Your task to perform on an android device: open a bookmark in the chrome app Image 0: 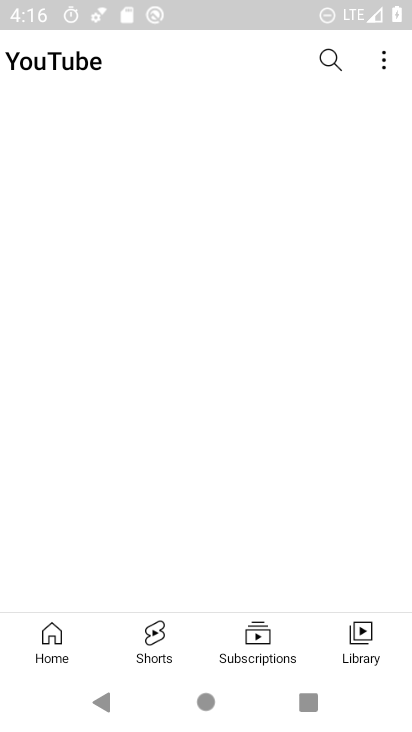
Step 0: press home button
Your task to perform on an android device: open a bookmark in the chrome app Image 1: 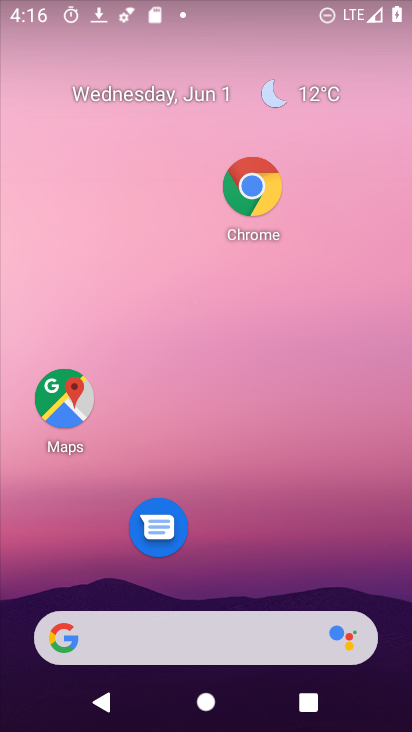
Step 1: drag from (248, 654) to (376, 72)
Your task to perform on an android device: open a bookmark in the chrome app Image 2: 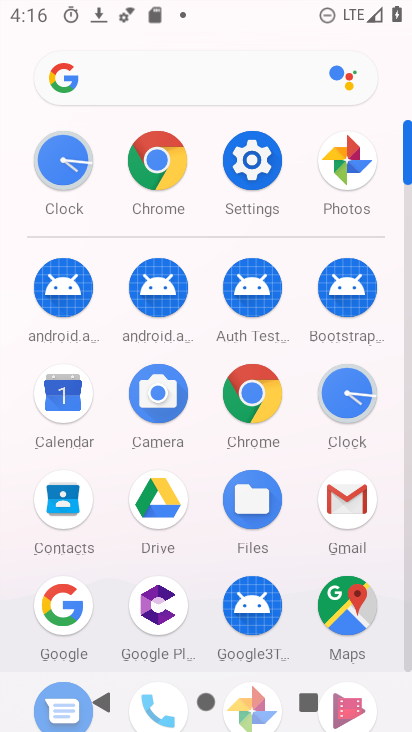
Step 2: click (267, 402)
Your task to perform on an android device: open a bookmark in the chrome app Image 3: 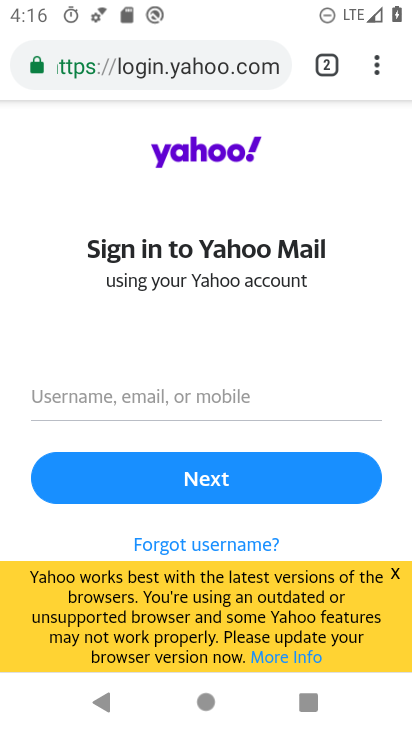
Step 3: click (389, 71)
Your task to perform on an android device: open a bookmark in the chrome app Image 4: 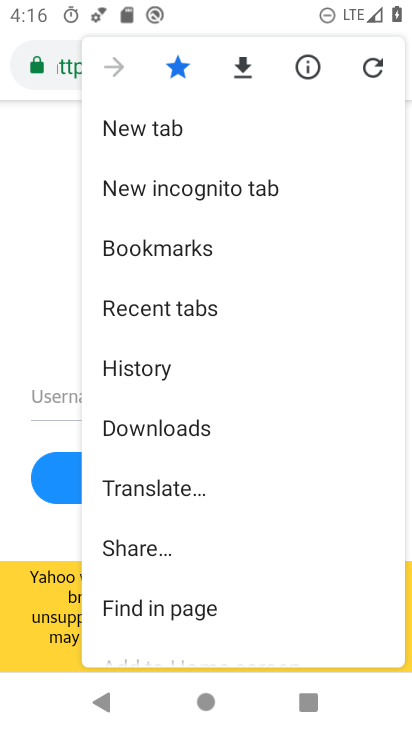
Step 4: click (220, 250)
Your task to perform on an android device: open a bookmark in the chrome app Image 5: 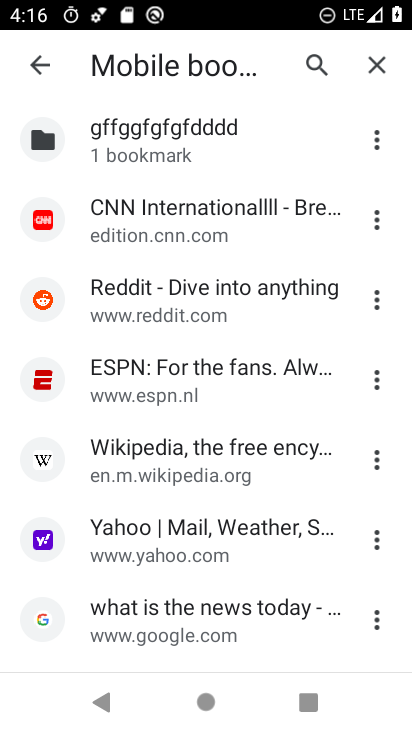
Step 5: click (150, 603)
Your task to perform on an android device: open a bookmark in the chrome app Image 6: 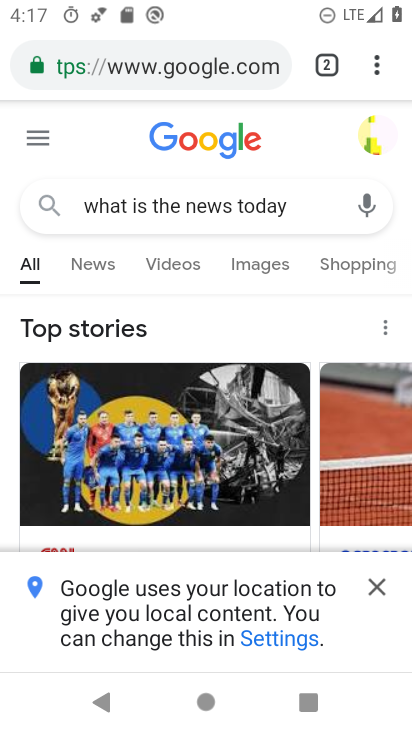
Step 6: click (376, 65)
Your task to perform on an android device: open a bookmark in the chrome app Image 7: 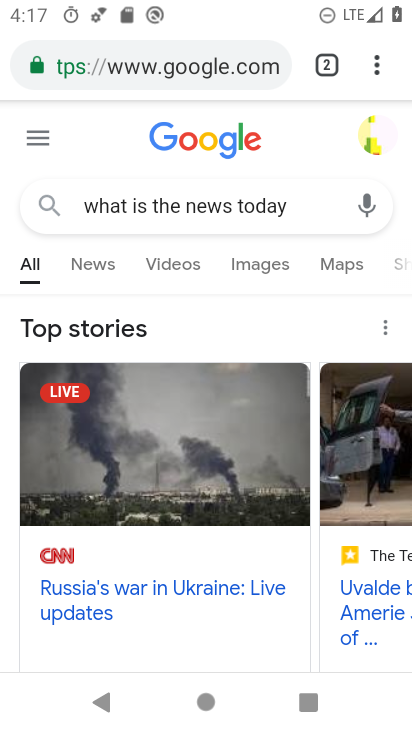
Step 7: task complete